Your task to perform on an android device: What's the weather? Image 0: 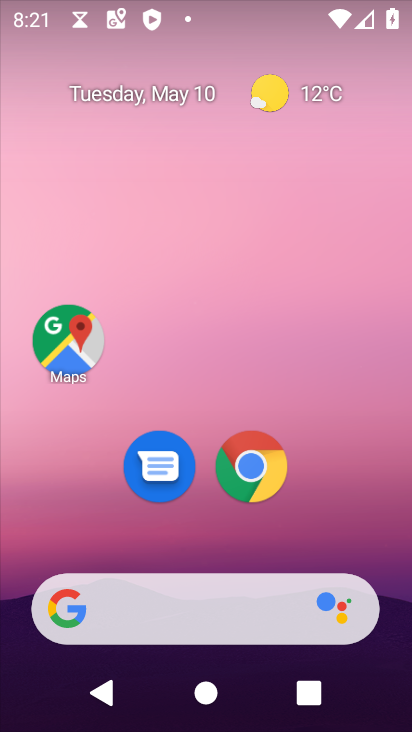
Step 0: click (328, 102)
Your task to perform on an android device: What's the weather? Image 1: 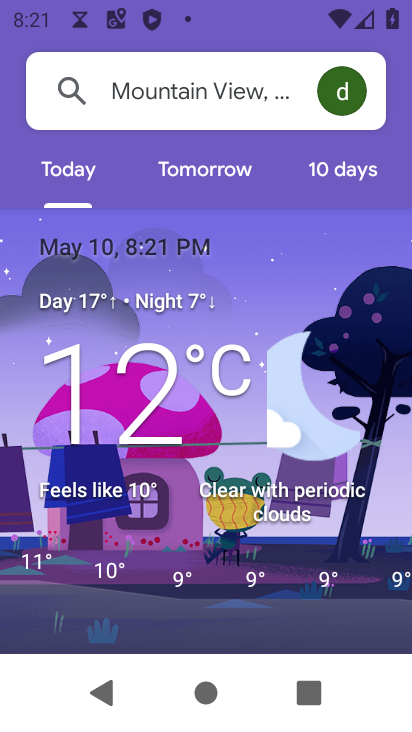
Step 1: task complete